Your task to perform on an android device: Open wifi settings Image 0: 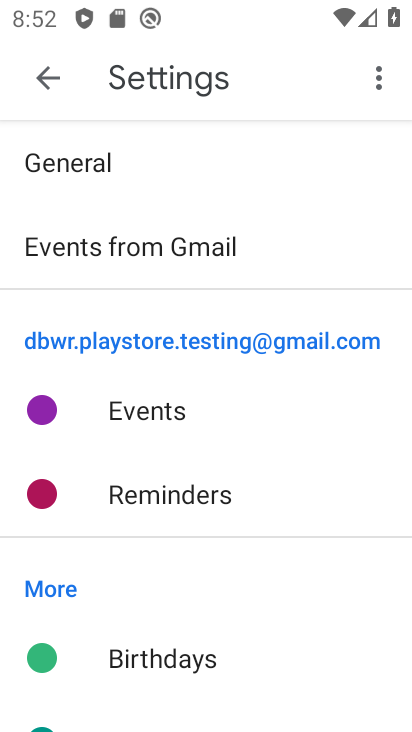
Step 0: press home button
Your task to perform on an android device: Open wifi settings Image 1: 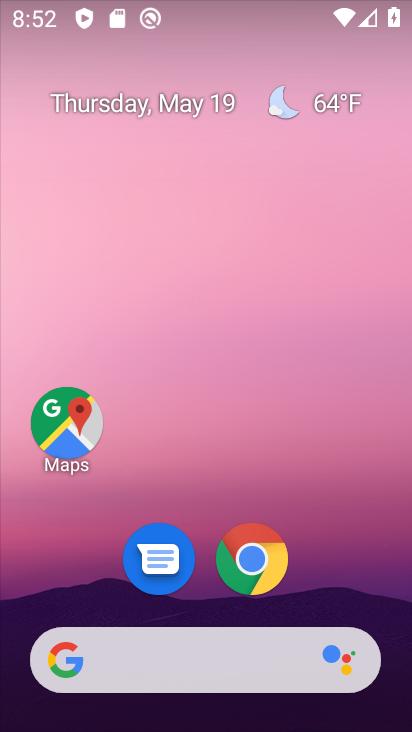
Step 1: drag from (222, 708) to (223, 139)
Your task to perform on an android device: Open wifi settings Image 2: 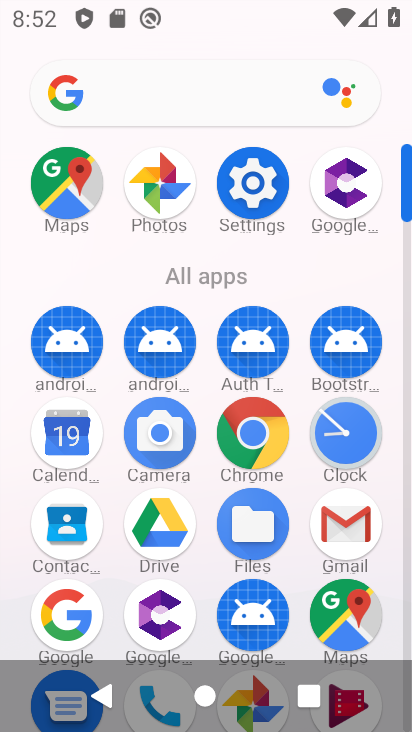
Step 2: click (251, 182)
Your task to perform on an android device: Open wifi settings Image 3: 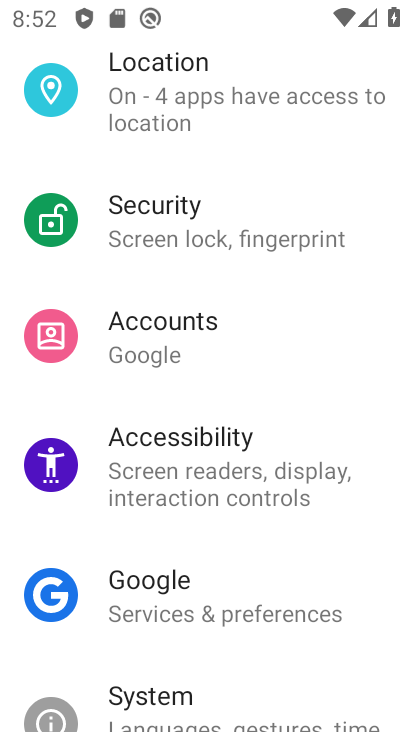
Step 3: drag from (244, 141) to (239, 554)
Your task to perform on an android device: Open wifi settings Image 4: 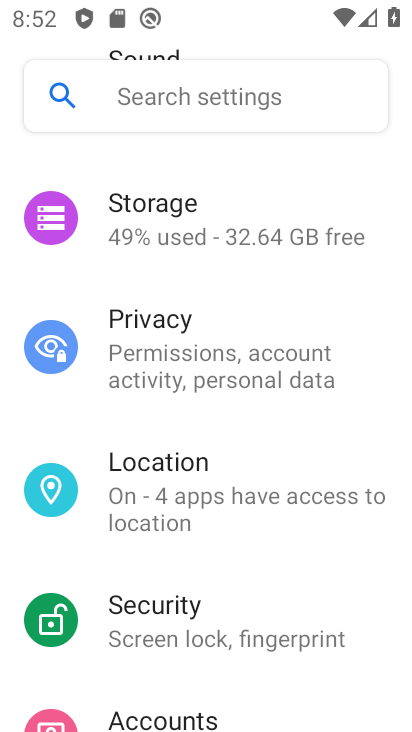
Step 4: drag from (231, 179) to (221, 521)
Your task to perform on an android device: Open wifi settings Image 5: 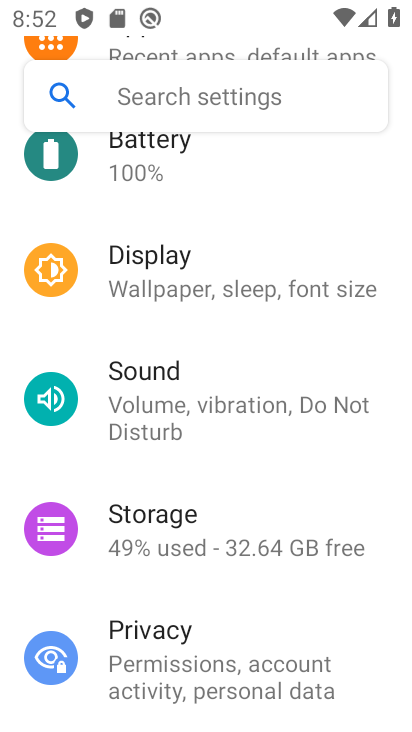
Step 5: drag from (210, 212) to (199, 590)
Your task to perform on an android device: Open wifi settings Image 6: 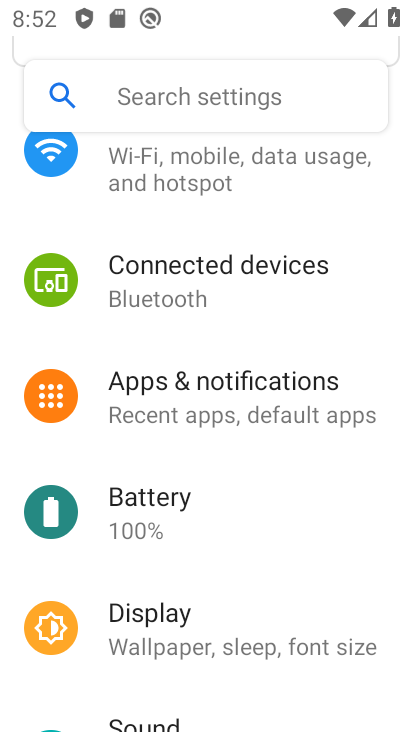
Step 6: drag from (208, 273) to (210, 558)
Your task to perform on an android device: Open wifi settings Image 7: 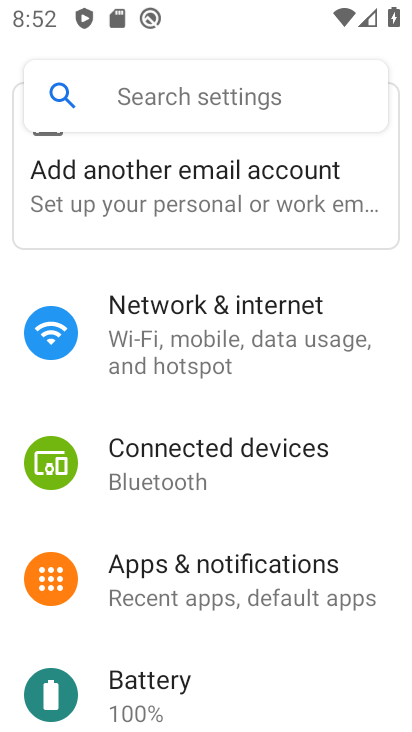
Step 7: click (170, 339)
Your task to perform on an android device: Open wifi settings Image 8: 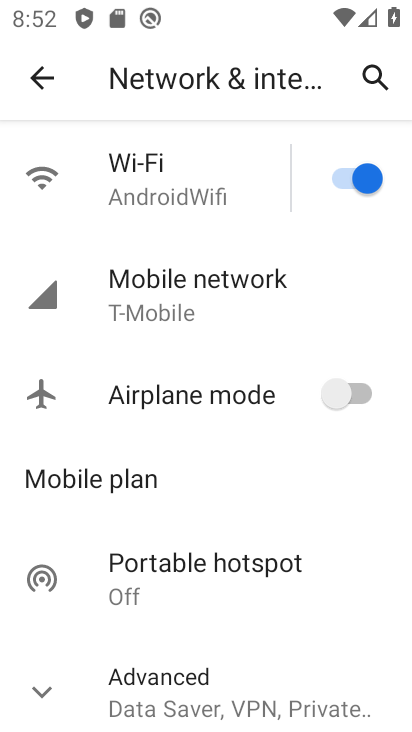
Step 8: click (164, 190)
Your task to perform on an android device: Open wifi settings Image 9: 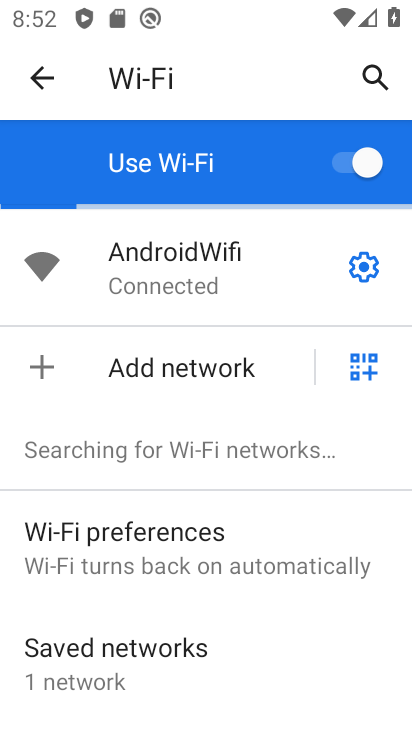
Step 9: task complete